Your task to perform on an android device: Open Youtube and go to the subscriptions tab Image 0: 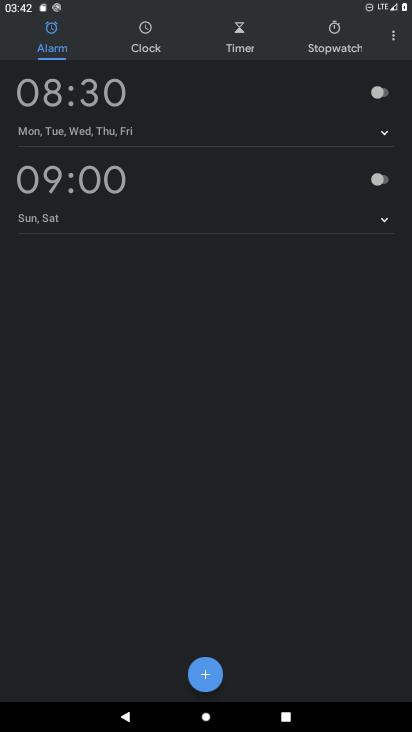
Step 0: press home button
Your task to perform on an android device: Open Youtube and go to the subscriptions tab Image 1: 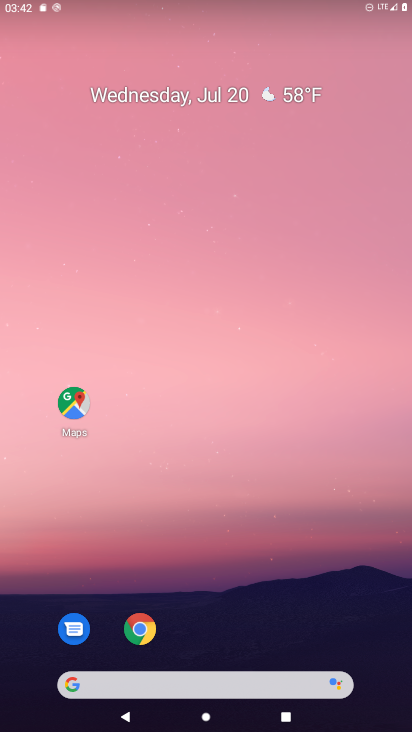
Step 1: drag from (283, 654) to (276, 4)
Your task to perform on an android device: Open Youtube and go to the subscriptions tab Image 2: 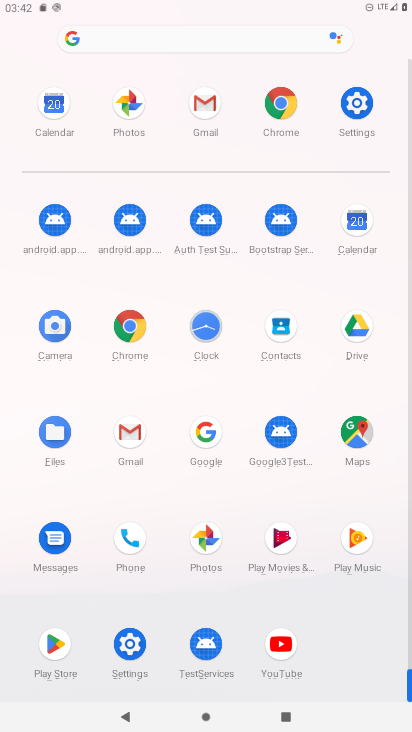
Step 2: click (266, 656)
Your task to perform on an android device: Open Youtube and go to the subscriptions tab Image 3: 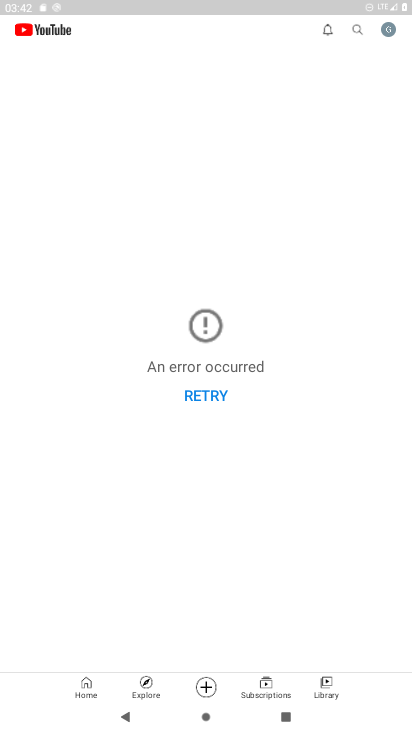
Step 3: click (258, 683)
Your task to perform on an android device: Open Youtube and go to the subscriptions tab Image 4: 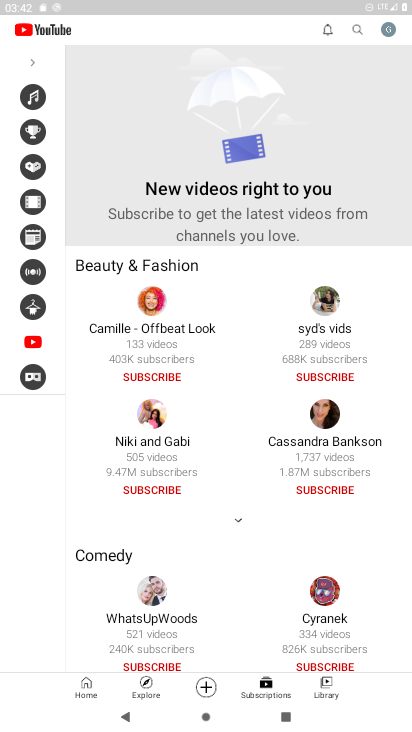
Step 4: task complete